Your task to perform on an android device: search for starred emails in the gmail app Image 0: 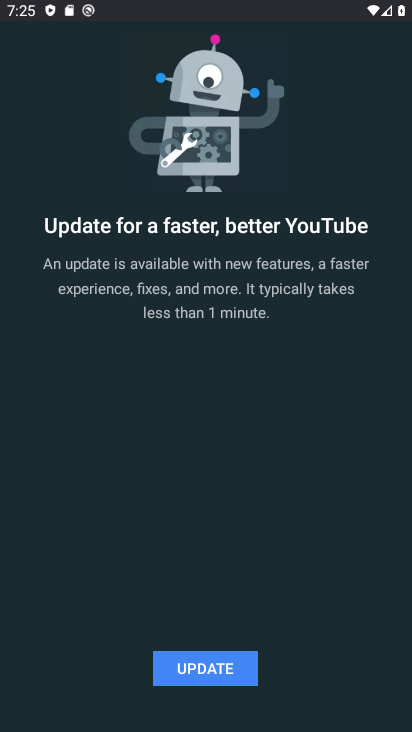
Step 0: press home button
Your task to perform on an android device: search for starred emails in the gmail app Image 1: 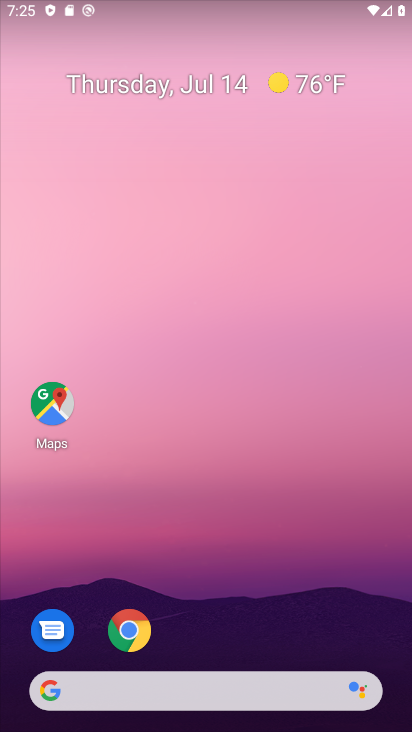
Step 1: drag from (234, 669) to (235, 317)
Your task to perform on an android device: search for starred emails in the gmail app Image 2: 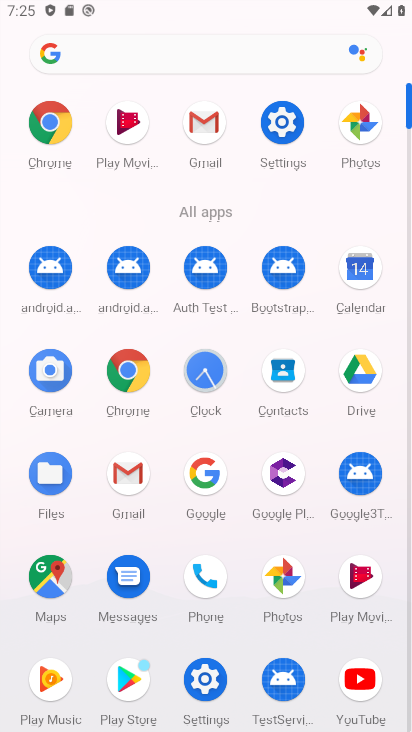
Step 2: click (213, 122)
Your task to perform on an android device: search for starred emails in the gmail app Image 3: 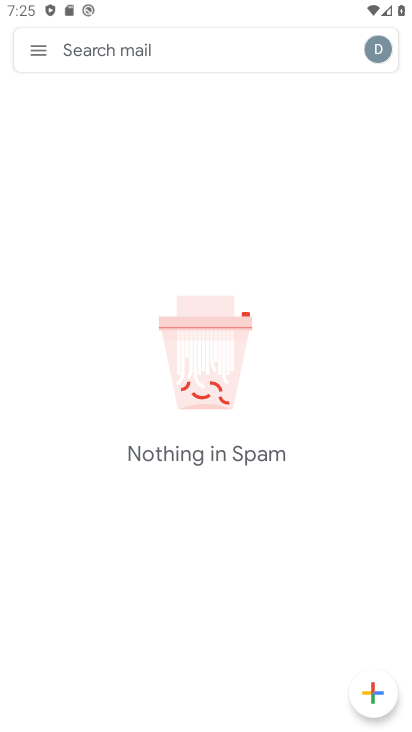
Step 3: click (31, 46)
Your task to perform on an android device: search for starred emails in the gmail app Image 4: 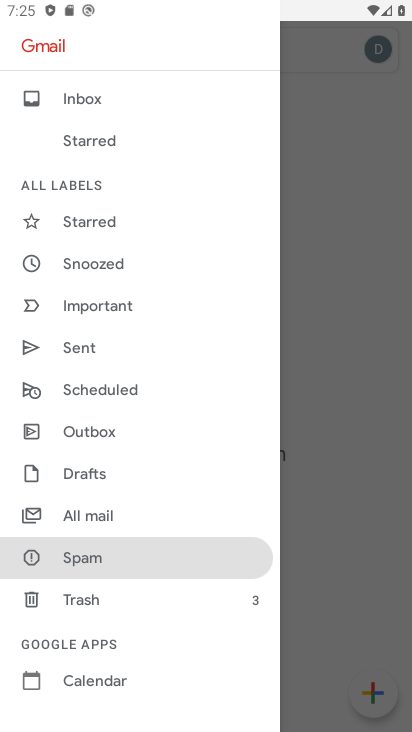
Step 4: click (109, 225)
Your task to perform on an android device: search for starred emails in the gmail app Image 5: 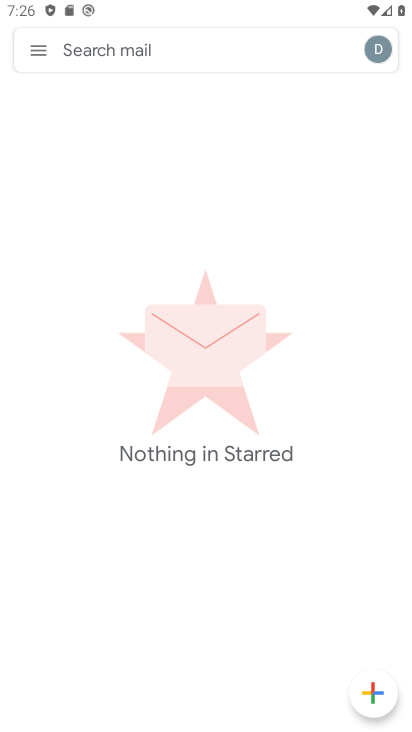
Step 5: task complete